Your task to perform on an android device: delete browsing data in the chrome app Image 0: 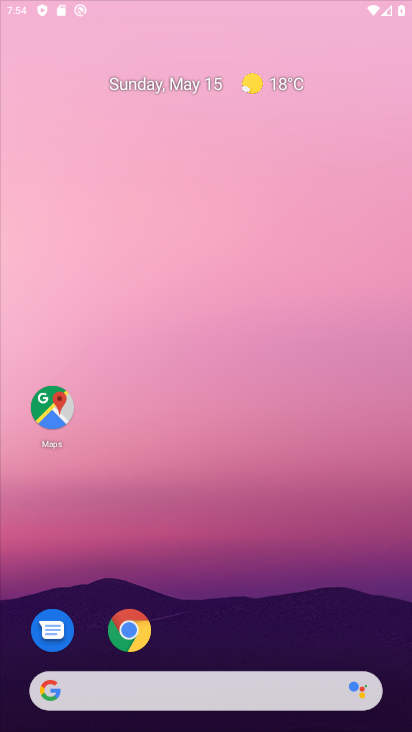
Step 0: click (299, 92)
Your task to perform on an android device: delete browsing data in the chrome app Image 1: 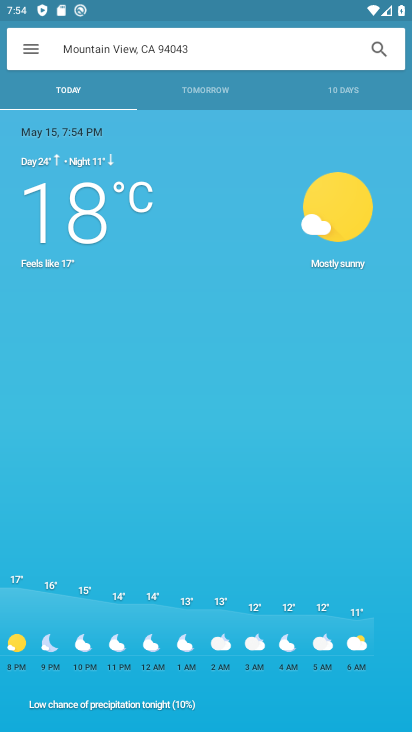
Step 1: press home button
Your task to perform on an android device: delete browsing data in the chrome app Image 2: 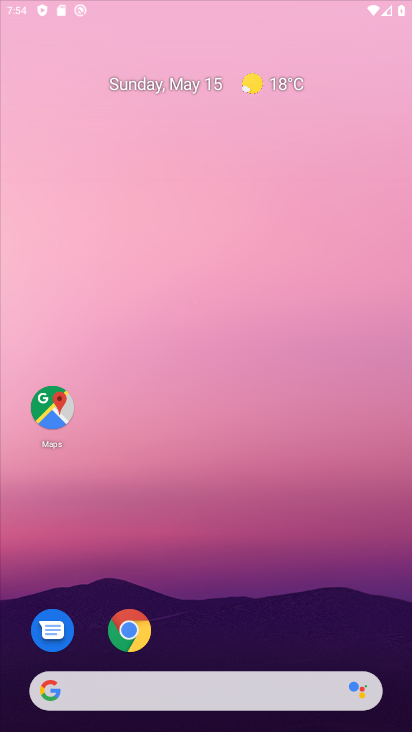
Step 2: drag from (207, 569) to (45, 315)
Your task to perform on an android device: delete browsing data in the chrome app Image 3: 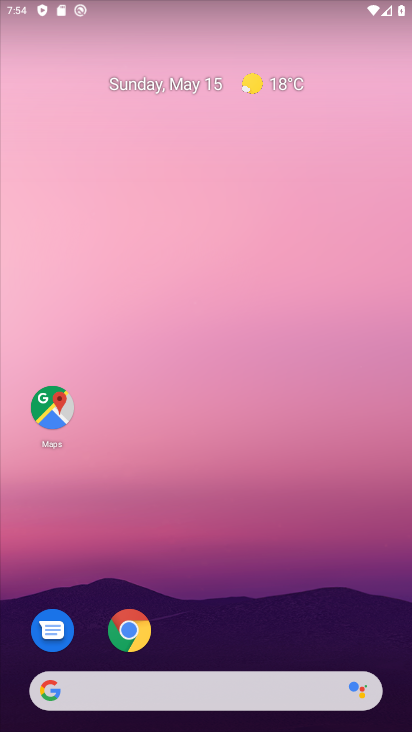
Step 3: click (128, 634)
Your task to perform on an android device: delete browsing data in the chrome app Image 4: 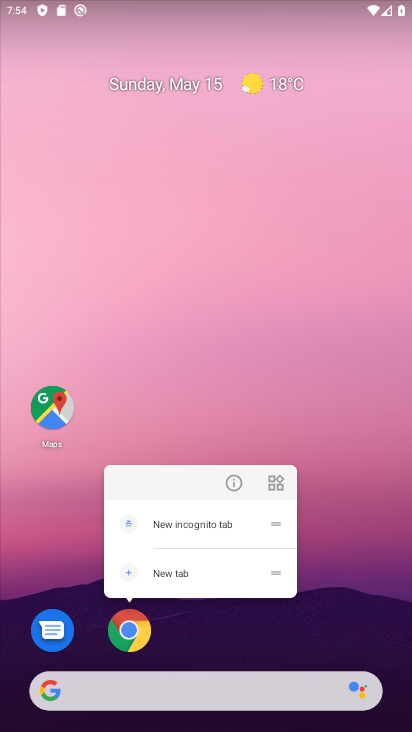
Step 4: click (235, 474)
Your task to perform on an android device: delete browsing data in the chrome app Image 5: 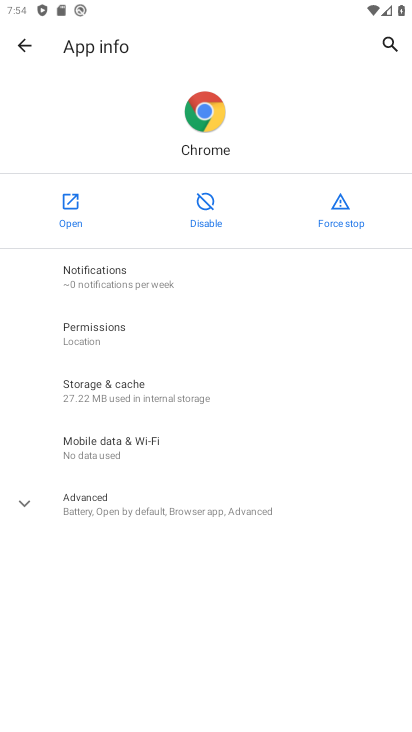
Step 5: click (70, 219)
Your task to perform on an android device: delete browsing data in the chrome app Image 6: 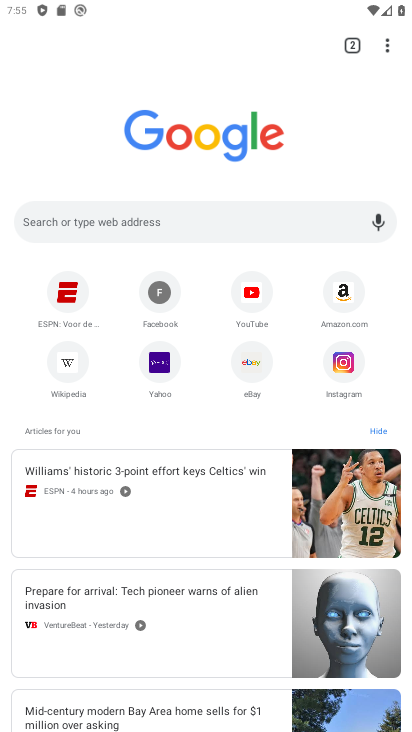
Step 6: click (382, 47)
Your task to perform on an android device: delete browsing data in the chrome app Image 7: 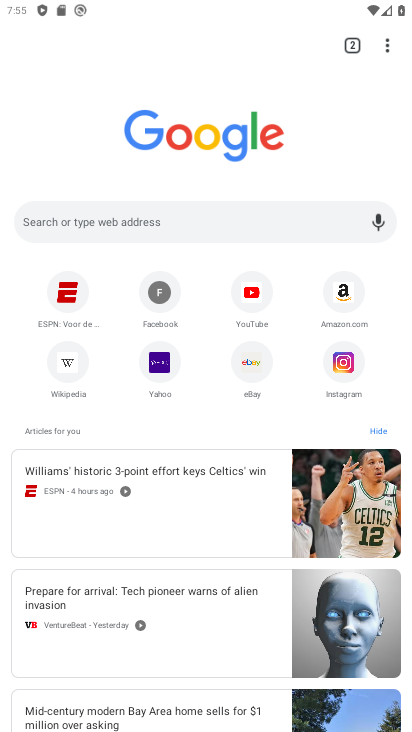
Step 7: click (388, 46)
Your task to perform on an android device: delete browsing data in the chrome app Image 8: 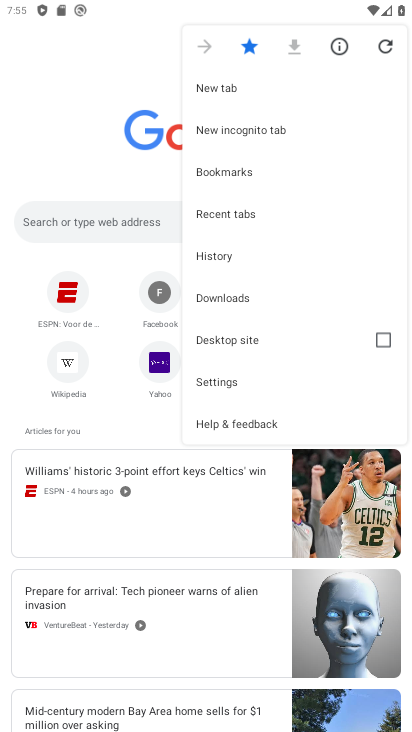
Step 8: drag from (285, 415) to (336, 77)
Your task to perform on an android device: delete browsing data in the chrome app Image 9: 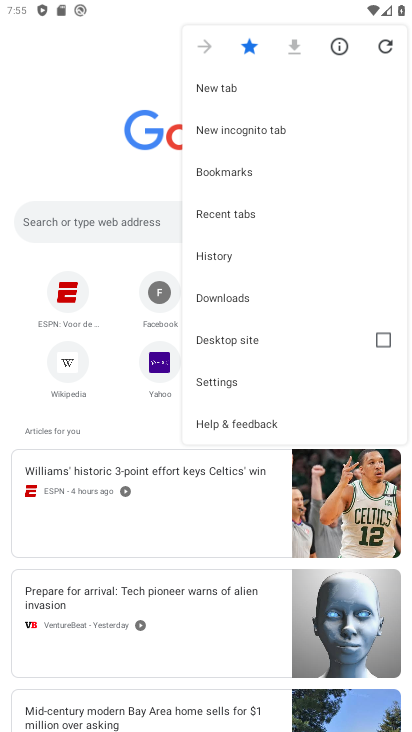
Step 9: click (223, 260)
Your task to perform on an android device: delete browsing data in the chrome app Image 10: 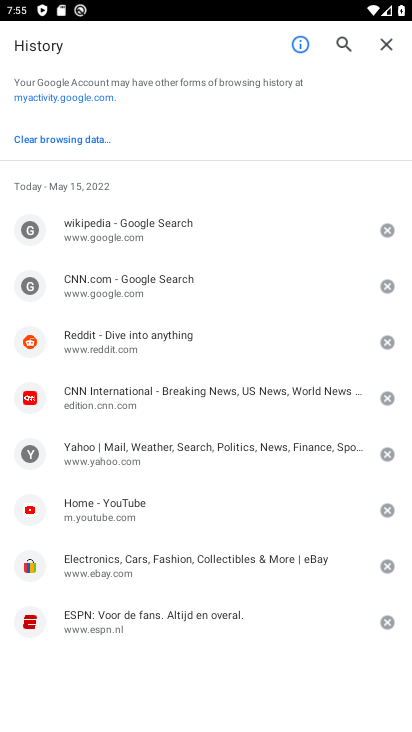
Step 10: click (61, 138)
Your task to perform on an android device: delete browsing data in the chrome app Image 11: 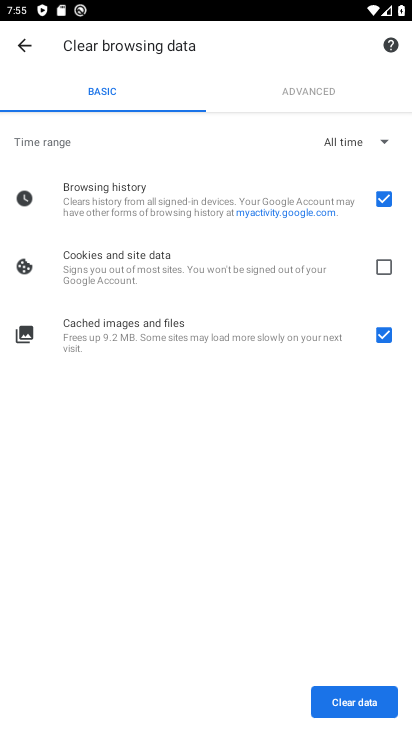
Step 11: click (344, 702)
Your task to perform on an android device: delete browsing data in the chrome app Image 12: 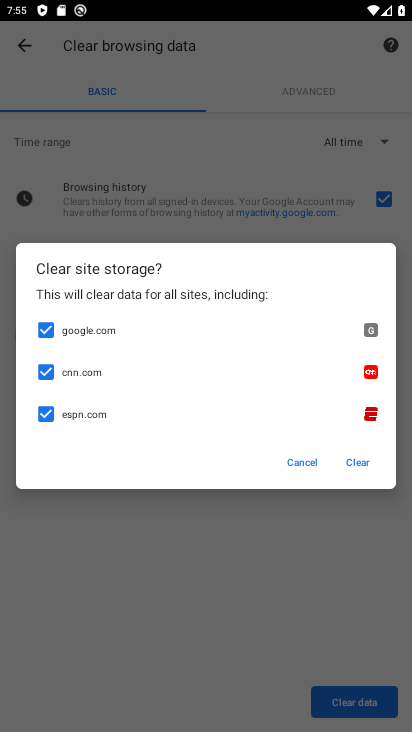
Step 12: click (354, 463)
Your task to perform on an android device: delete browsing data in the chrome app Image 13: 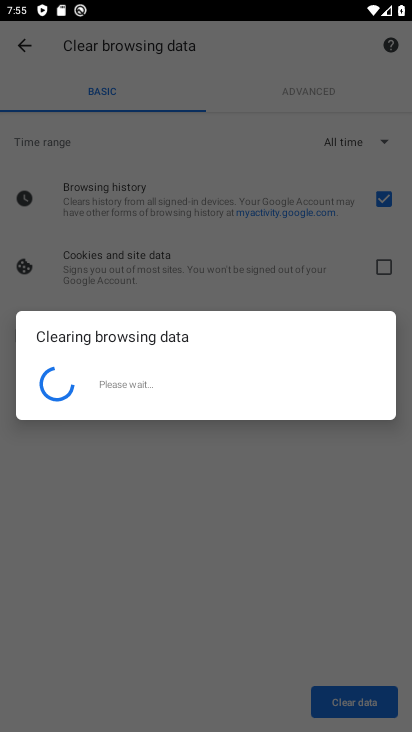
Step 13: task complete